Your task to perform on an android device: turn off translation in the chrome app Image 0: 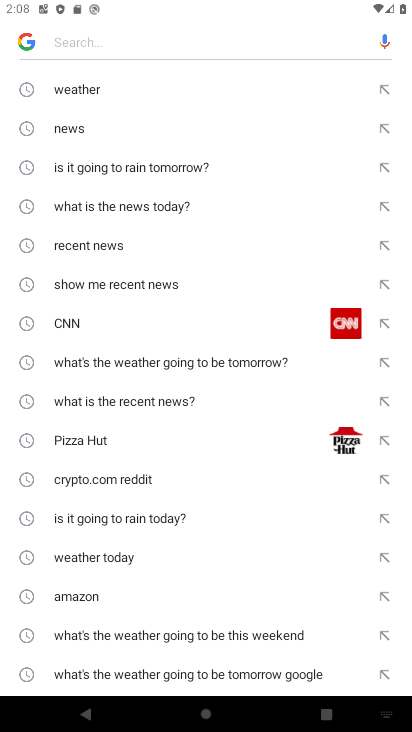
Step 0: press back button
Your task to perform on an android device: turn off translation in the chrome app Image 1: 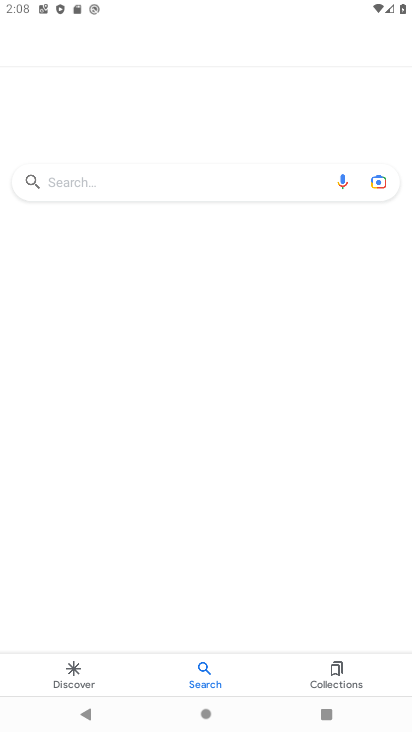
Step 1: task complete